Your task to perform on an android device: change keyboard looks Image 0: 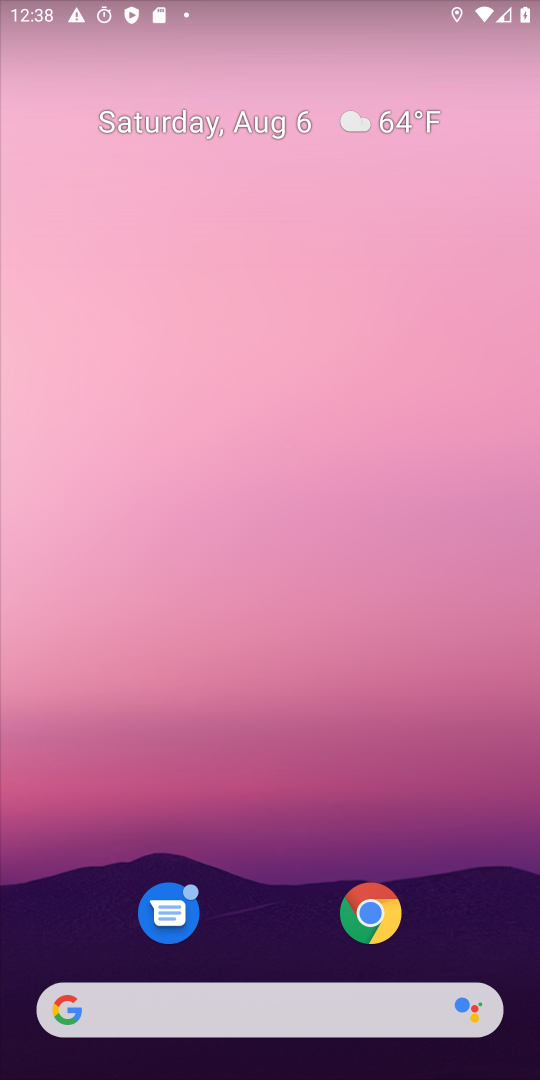
Step 0: drag from (444, 937) to (409, 232)
Your task to perform on an android device: change keyboard looks Image 1: 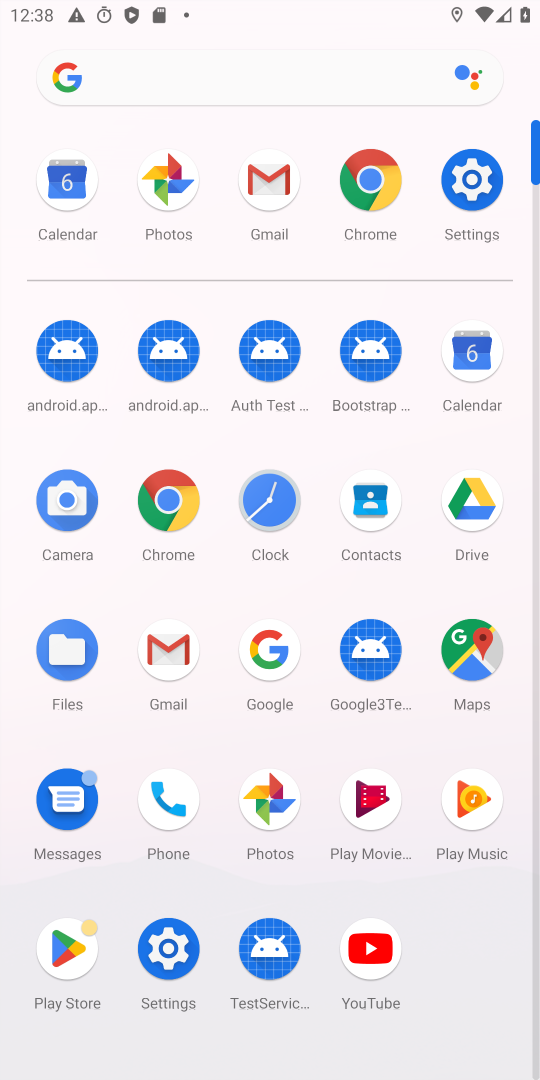
Step 1: click (473, 190)
Your task to perform on an android device: change keyboard looks Image 2: 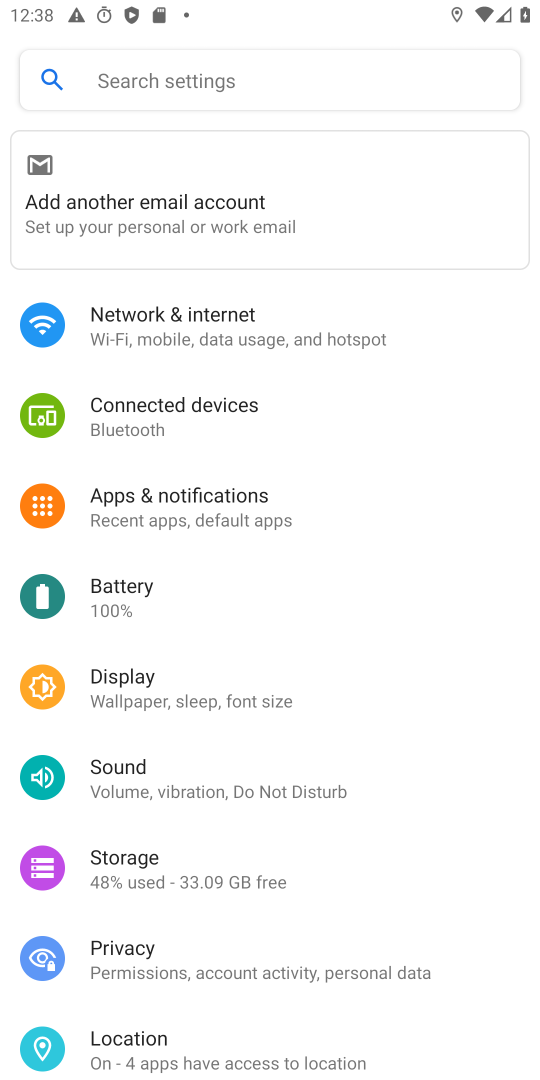
Step 2: drag from (479, 576) to (460, 417)
Your task to perform on an android device: change keyboard looks Image 3: 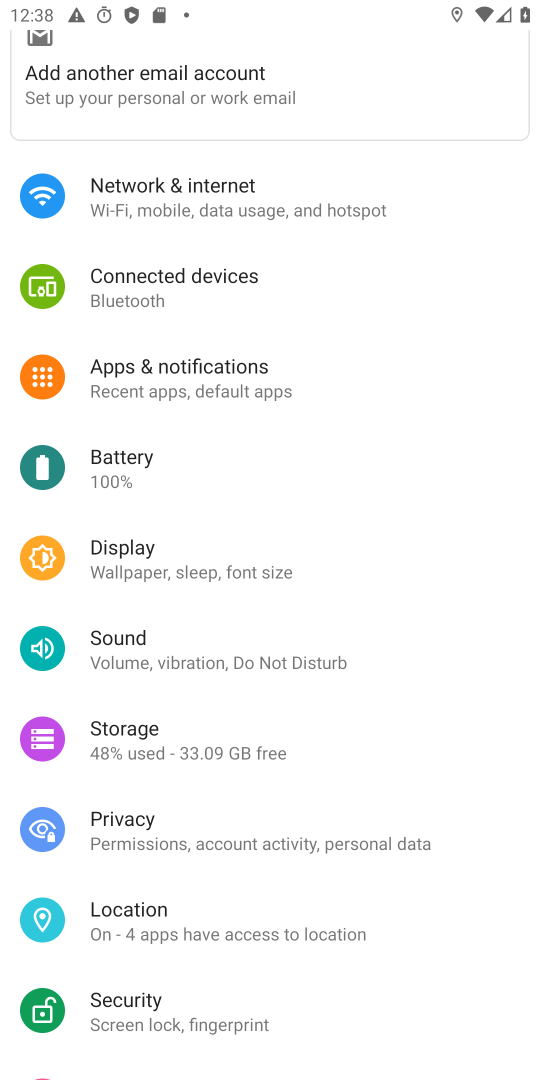
Step 3: drag from (466, 629) to (455, 490)
Your task to perform on an android device: change keyboard looks Image 4: 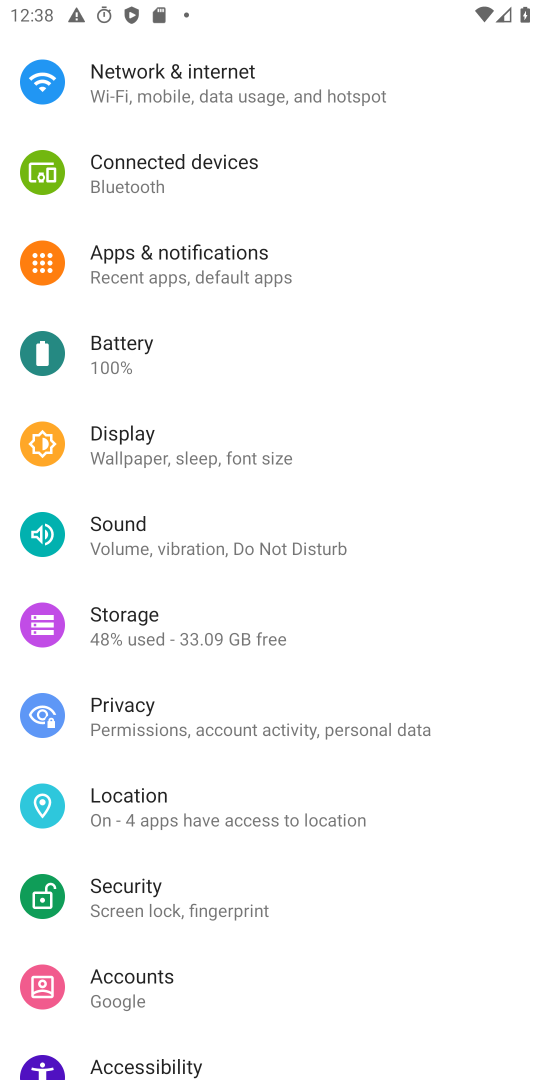
Step 4: drag from (459, 649) to (446, 504)
Your task to perform on an android device: change keyboard looks Image 5: 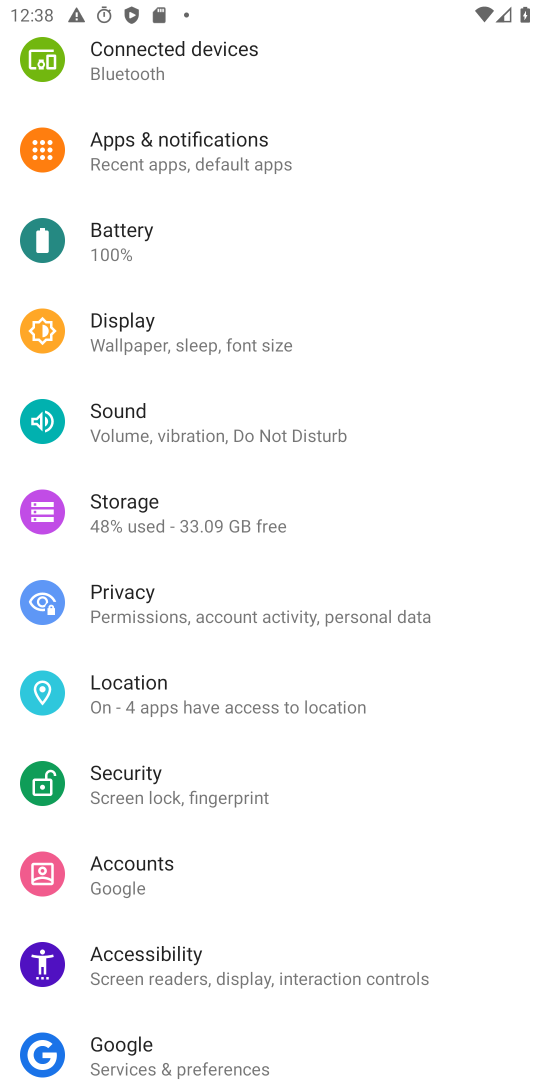
Step 5: drag from (467, 717) to (456, 543)
Your task to perform on an android device: change keyboard looks Image 6: 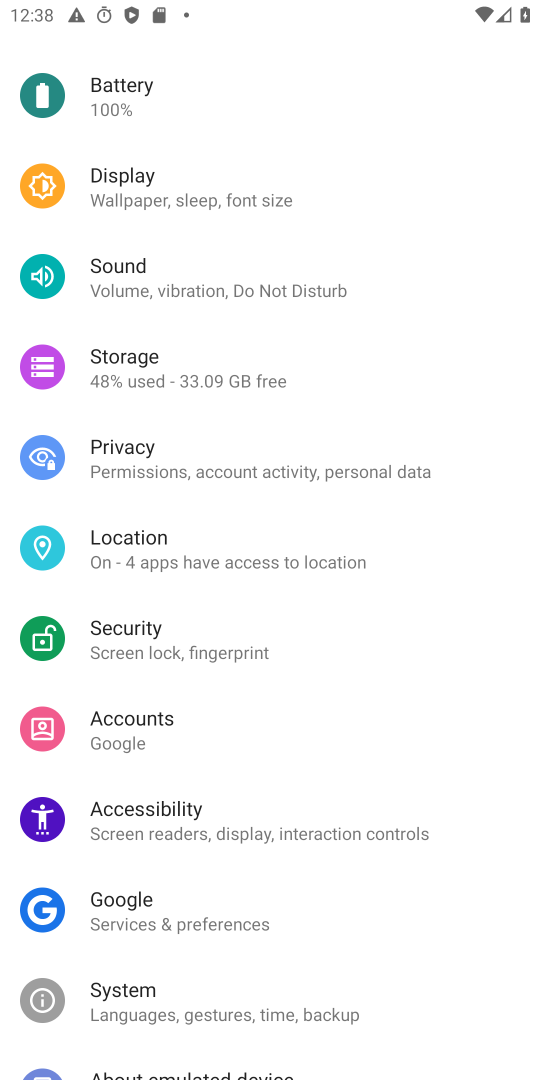
Step 6: drag from (455, 711) to (455, 592)
Your task to perform on an android device: change keyboard looks Image 7: 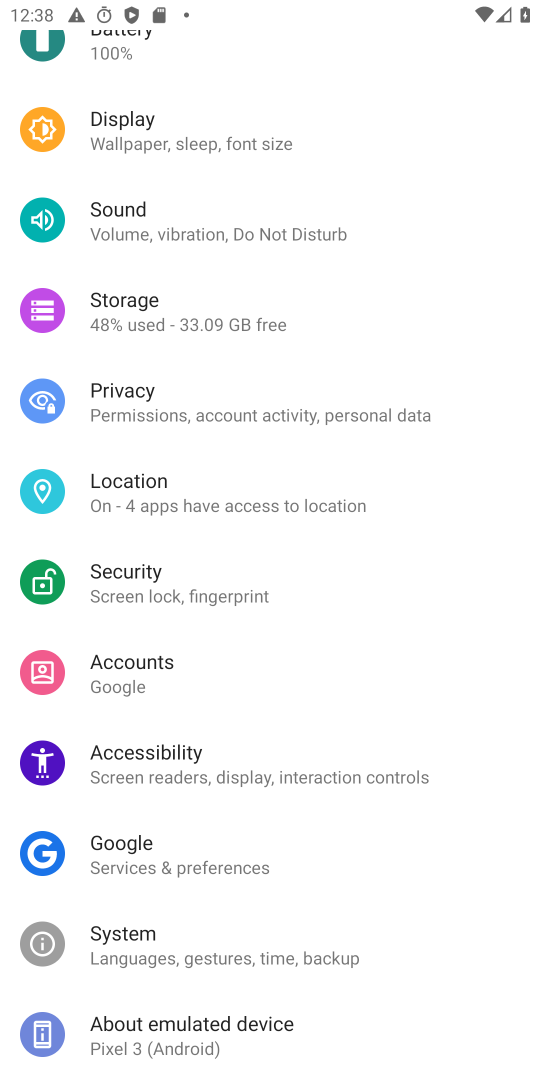
Step 7: drag from (453, 711) to (454, 532)
Your task to perform on an android device: change keyboard looks Image 8: 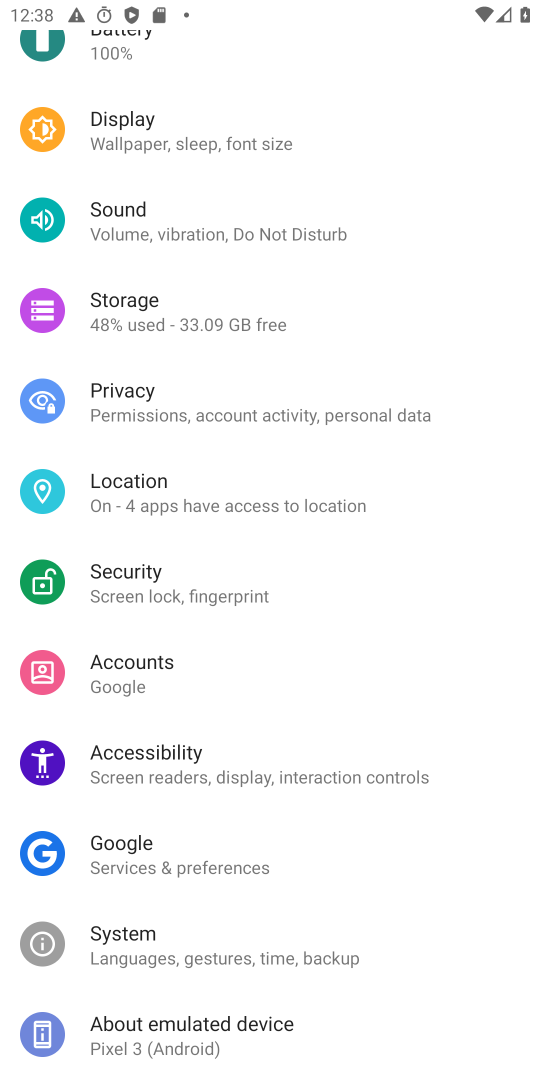
Step 8: click (377, 939)
Your task to perform on an android device: change keyboard looks Image 9: 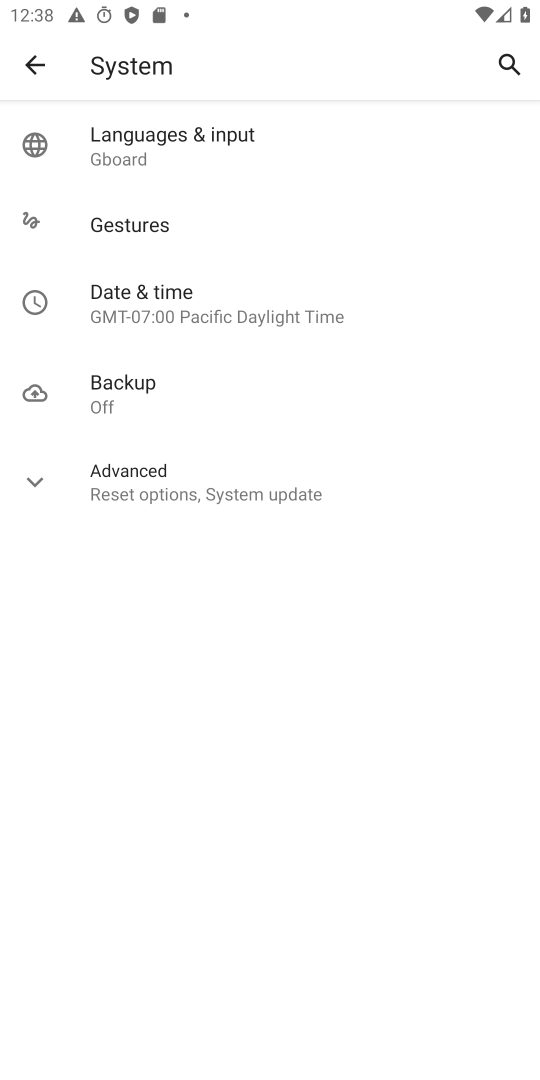
Step 9: click (252, 152)
Your task to perform on an android device: change keyboard looks Image 10: 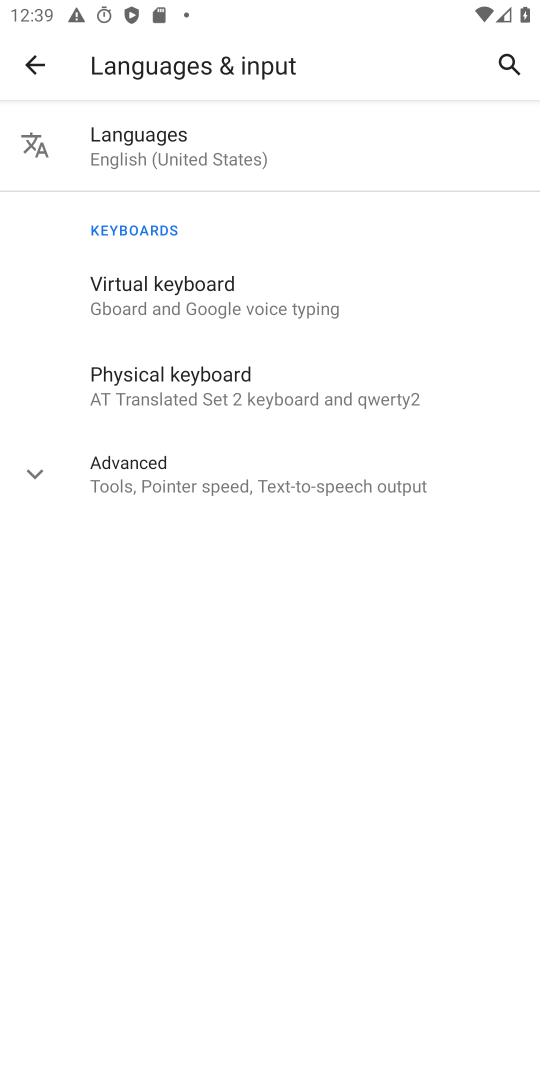
Step 10: click (262, 304)
Your task to perform on an android device: change keyboard looks Image 11: 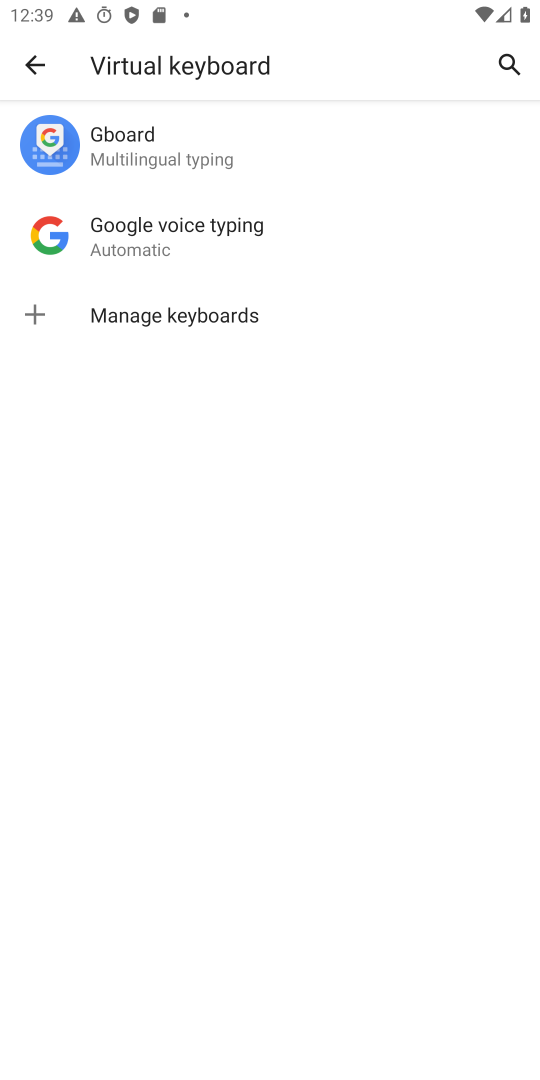
Step 11: click (217, 151)
Your task to perform on an android device: change keyboard looks Image 12: 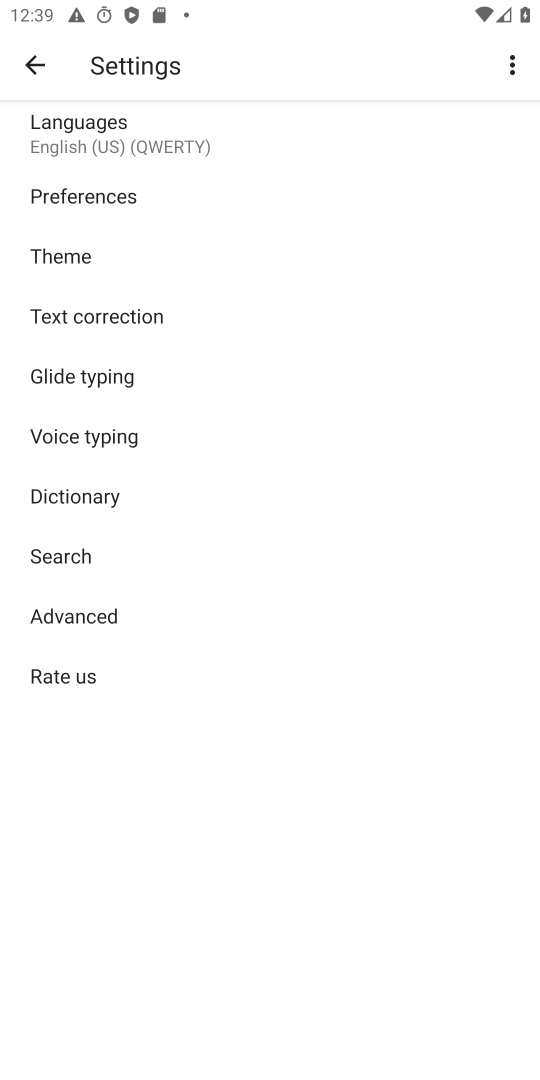
Step 12: click (194, 253)
Your task to perform on an android device: change keyboard looks Image 13: 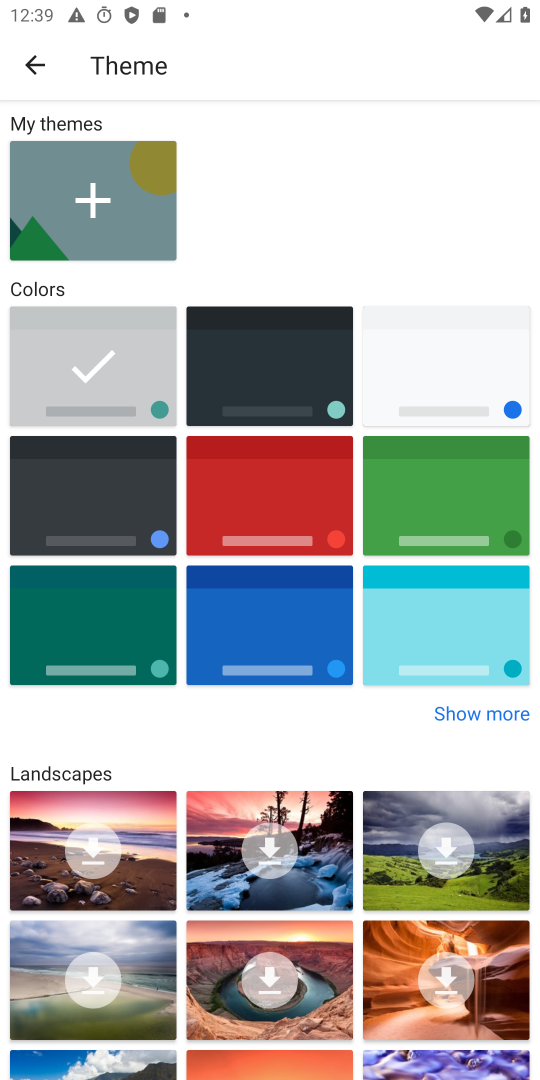
Step 13: click (247, 516)
Your task to perform on an android device: change keyboard looks Image 14: 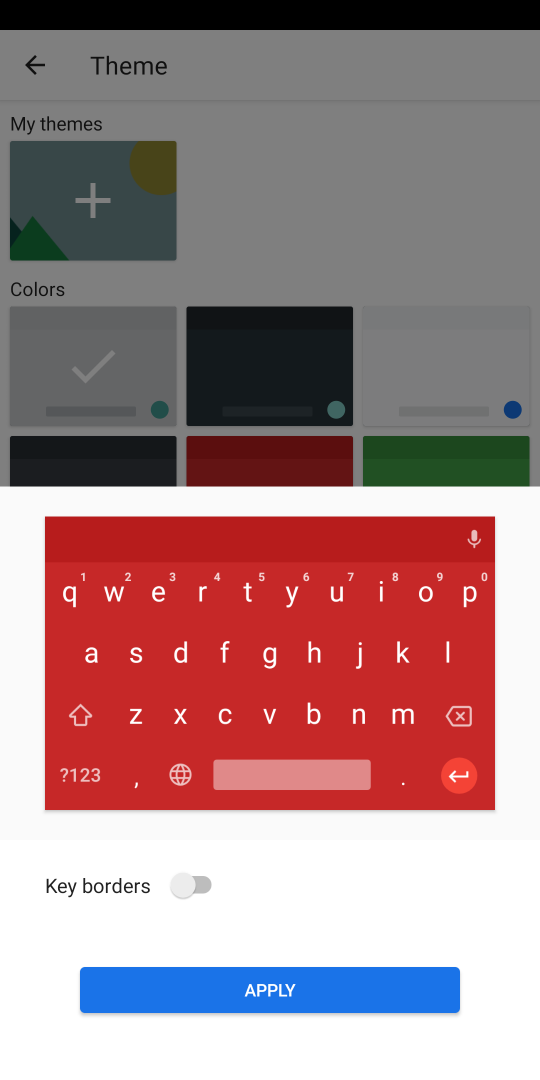
Step 14: click (393, 994)
Your task to perform on an android device: change keyboard looks Image 15: 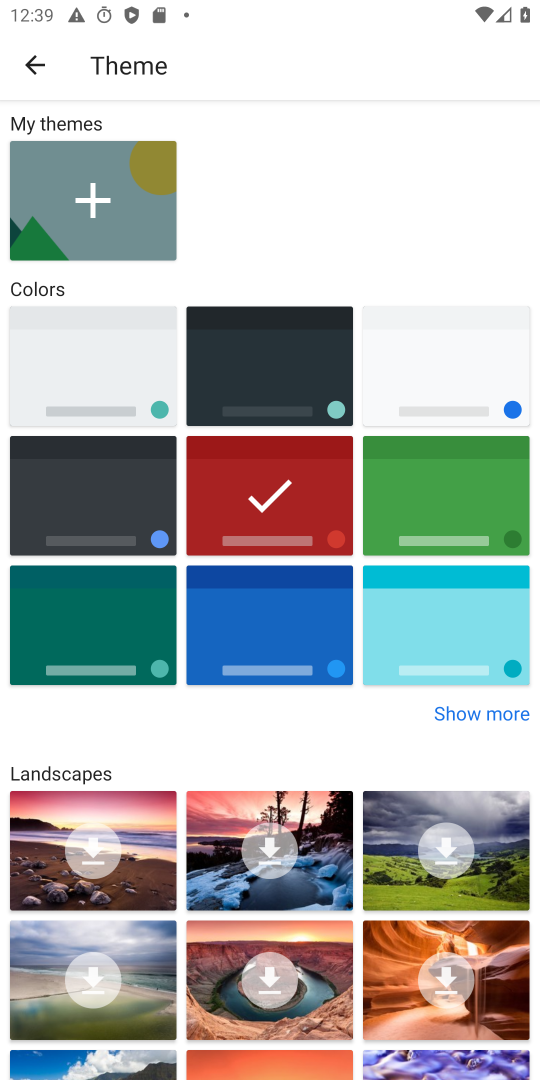
Step 15: task complete